Your task to perform on an android device: Check the weather Image 0: 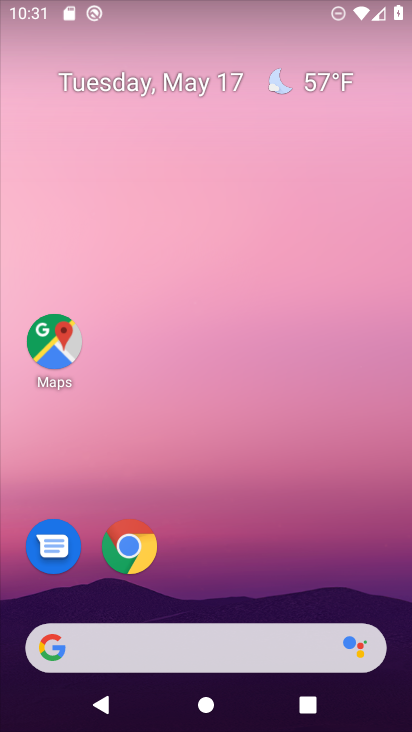
Step 0: click (322, 96)
Your task to perform on an android device: Check the weather Image 1: 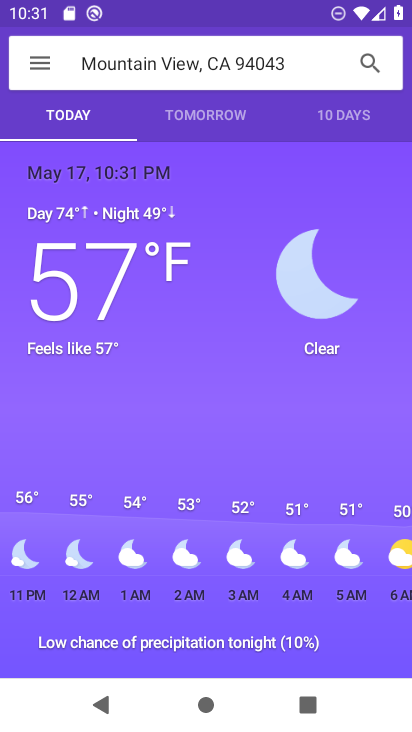
Step 1: task complete